Your task to perform on an android device: turn off airplane mode Image 0: 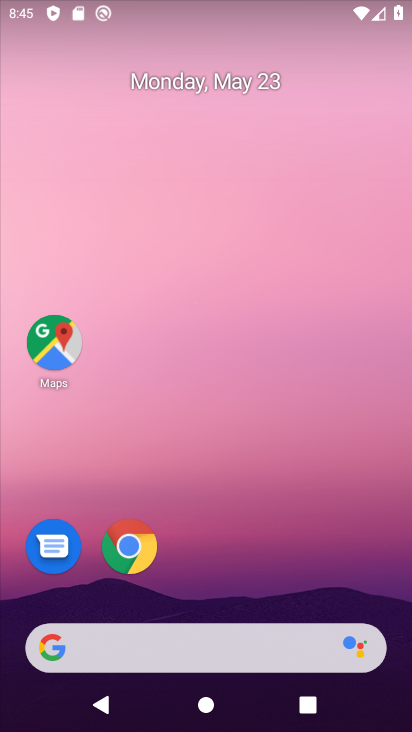
Step 0: drag from (321, 587) to (298, 71)
Your task to perform on an android device: turn off airplane mode Image 1: 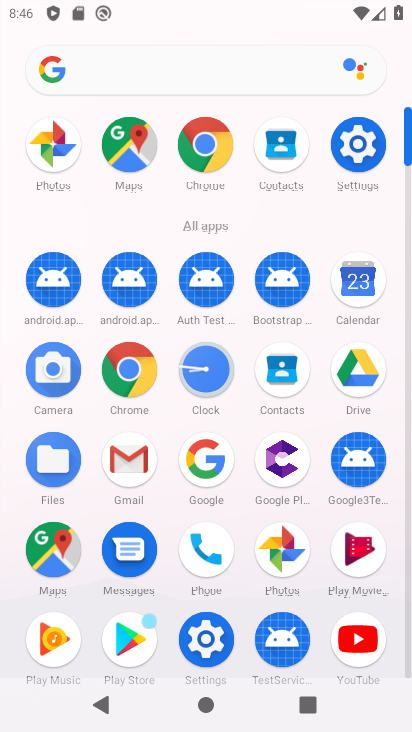
Step 1: click (341, 140)
Your task to perform on an android device: turn off airplane mode Image 2: 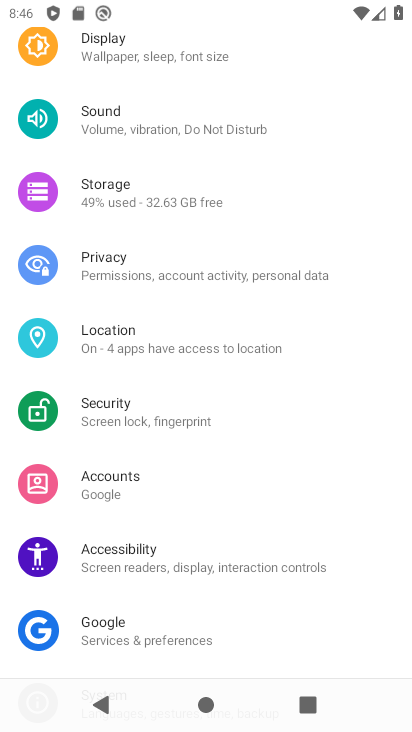
Step 2: drag from (168, 124) to (237, 574)
Your task to perform on an android device: turn off airplane mode Image 3: 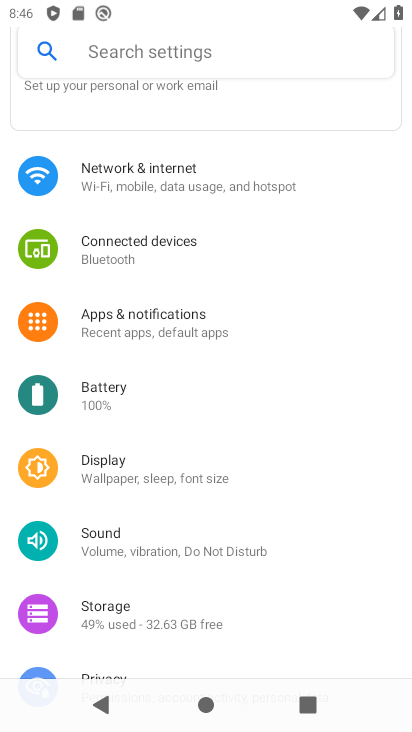
Step 3: drag from (183, 174) to (247, 477)
Your task to perform on an android device: turn off airplane mode Image 4: 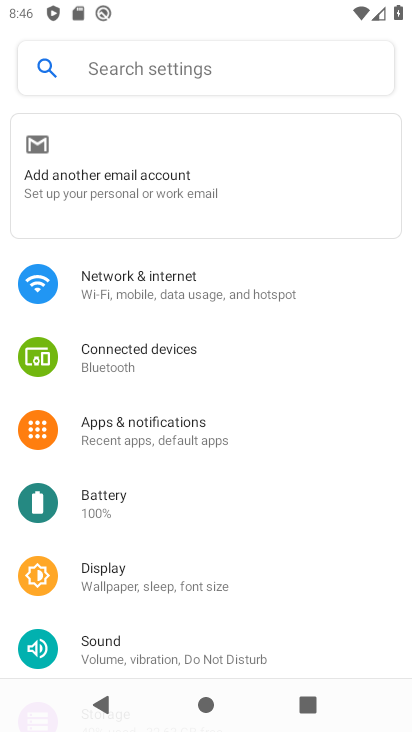
Step 4: click (215, 299)
Your task to perform on an android device: turn off airplane mode Image 5: 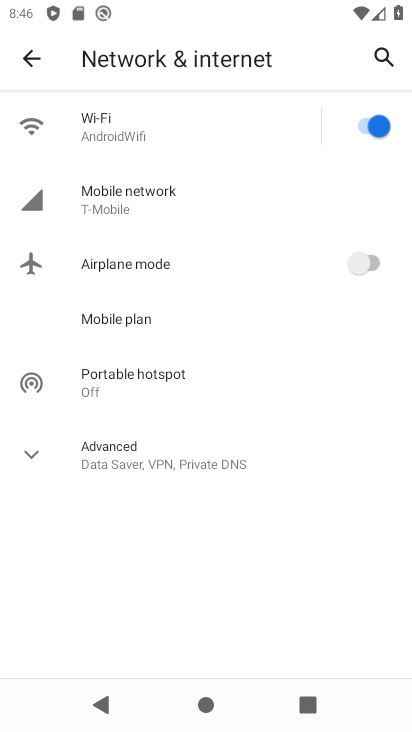
Step 5: task complete